Your task to perform on an android device: set default search engine in the chrome app Image 0: 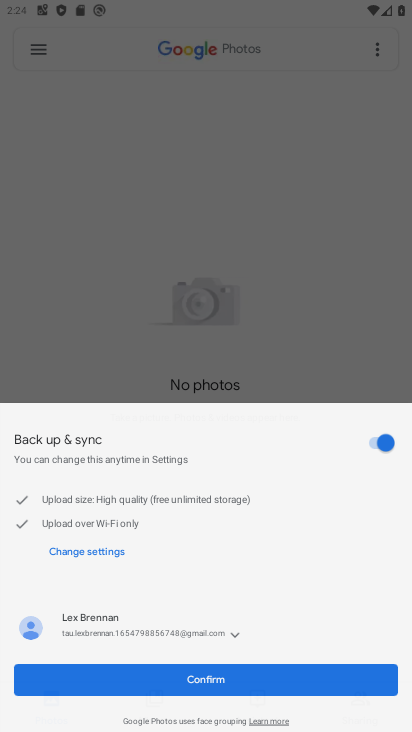
Step 0: drag from (387, 682) to (290, 151)
Your task to perform on an android device: set default search engine in the chrome app Image 1: 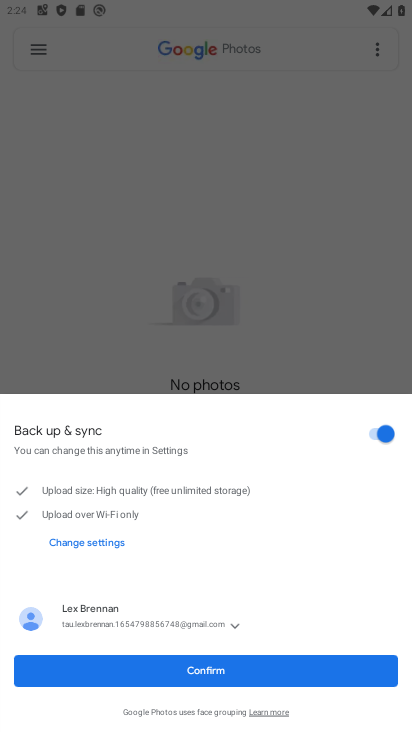
Step 1: press home button
Your task to perform on an android device: set default search engine in the chrome app Image 2: 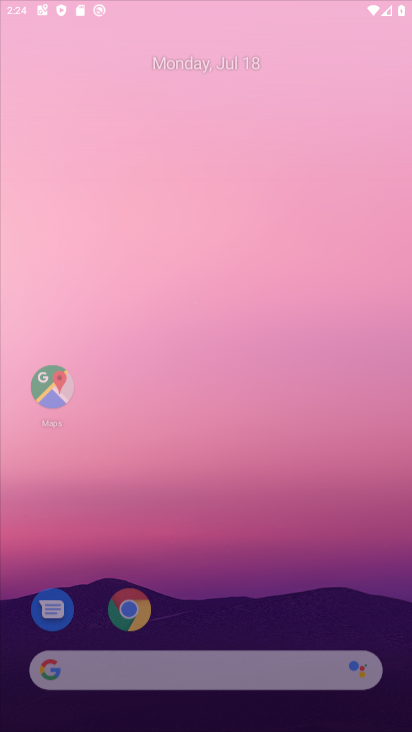
Step 2: drag from (394, 716) to (292, 50)
Your task to perform on an android device: set default search engine in the chrome app Image 3: 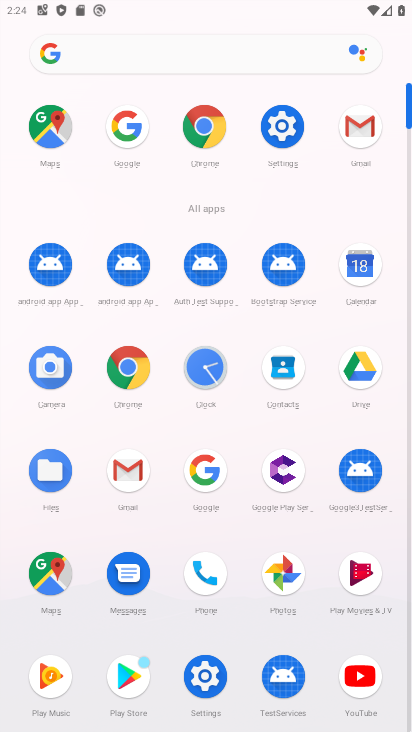
Step 3: click (120, 372)
Your task to perform on an android device: set default search engine in the chrome app Image 4: 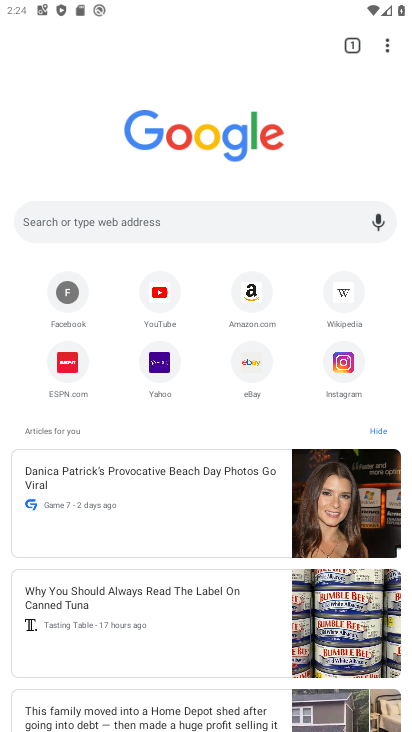
Step 4: click (387, 43)
Your task to perform on an android device: set default search engine in the chrome app Image 5: 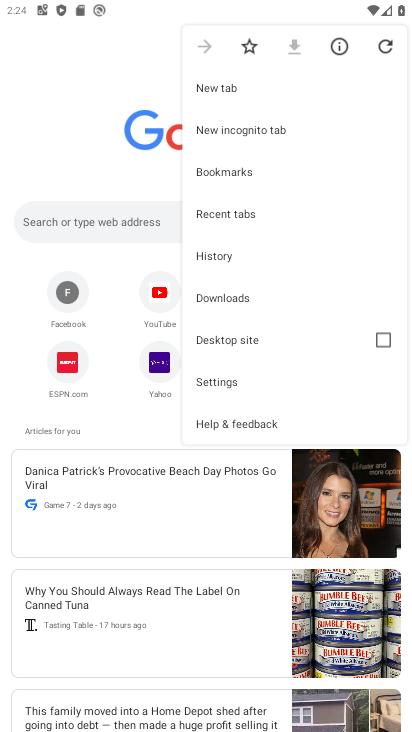
Step 5: click (220, 387)
Your task to perform on an android device: set default search engine in the chrome app Image 6: 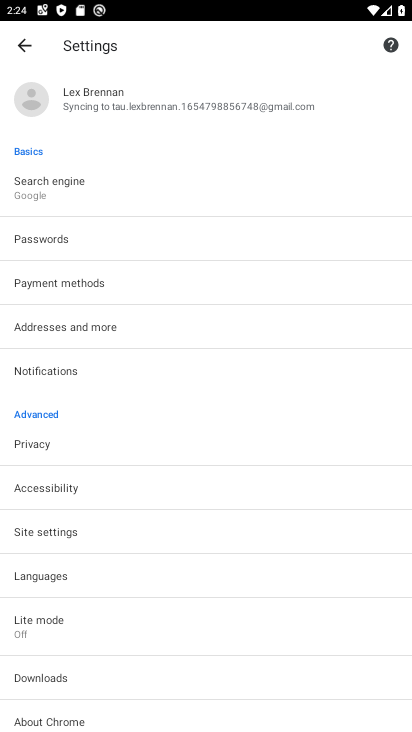
Step 6: click (52, 185)
Your task to perform on an android device: set default search engine in the chrome app Image 7: 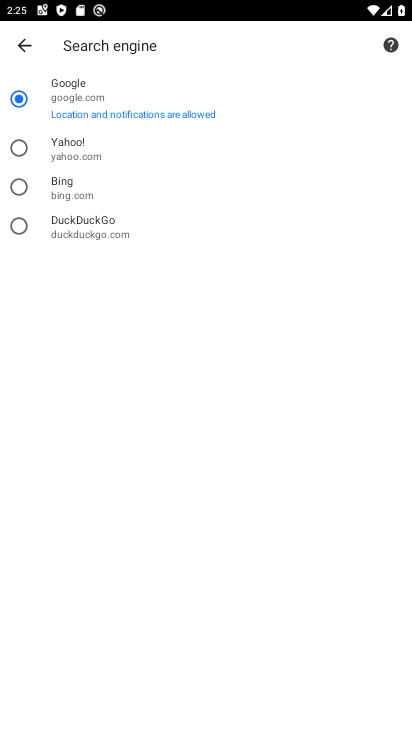
Step 7: click (90, 193)
Your task to perform on an android device: set default search engine in the chrome app Image 8: 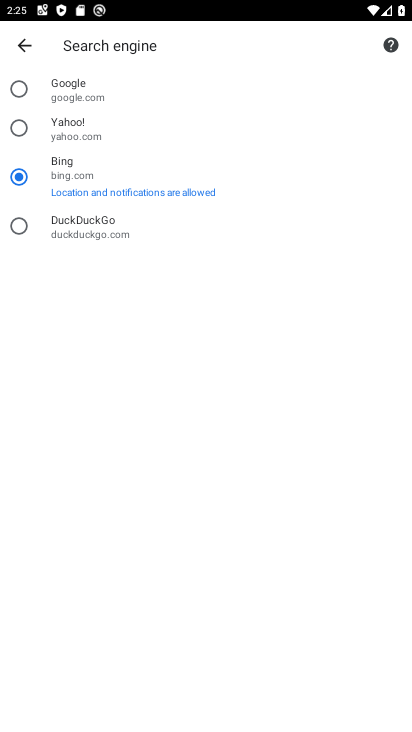
Step 8: task complete